Your task to perform on an android device: Open Google Chrome and click the shortcut for Amazon.com Image 0: 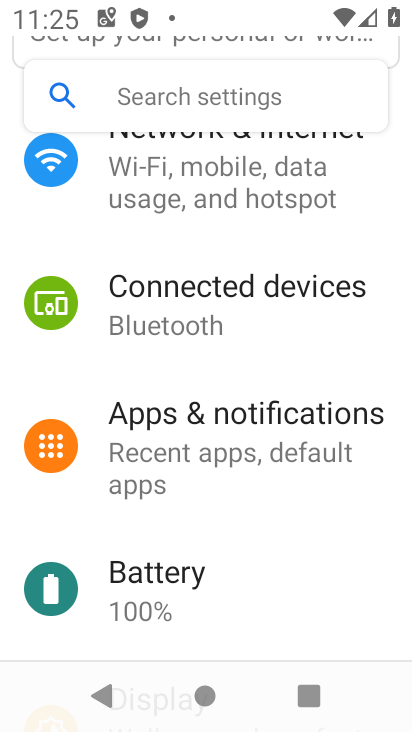
Step 0: press home button
Your task to perform on an android device: Open Google Chrome and click the shortcut for Amazon.com Image 1: 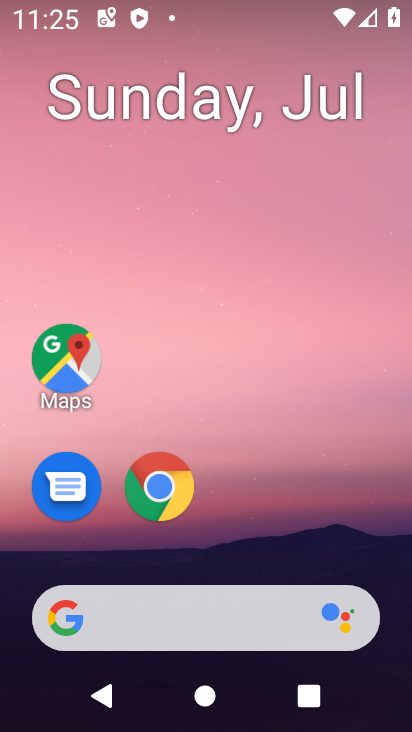
Step 1: drag from (330, 522) to (317, 66)
Your task to perform on an android device: Open Google Chrome and click the shortcut for Amazon.com Image 2: 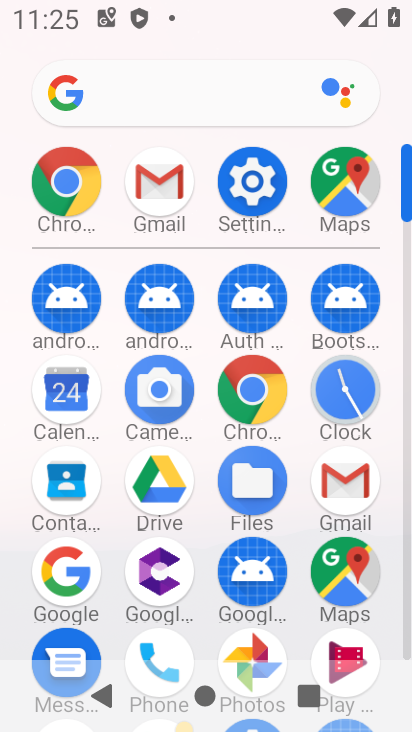
Step 2: click (253, 390)
Your task to perform on an android device: Open Google Chrome and click the shortcut for Amazon.com Image 3: 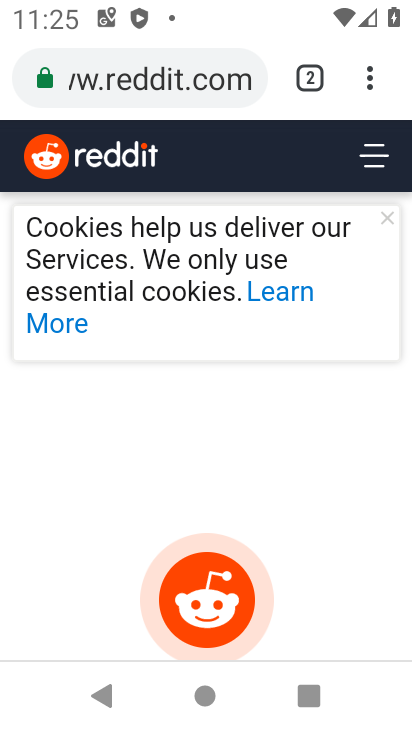
Step 3: press back button
Your task to perform on an android device: Open Google Chrome and click the shortcut for Amazon.com Image 4: 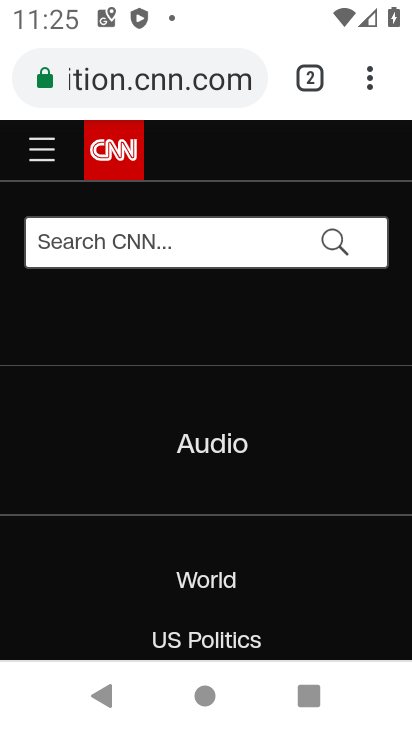
Step 4: press back button
Your task to perform on an android device: Open Google Chrome and click the shortcut for Amazon.com Image 5: 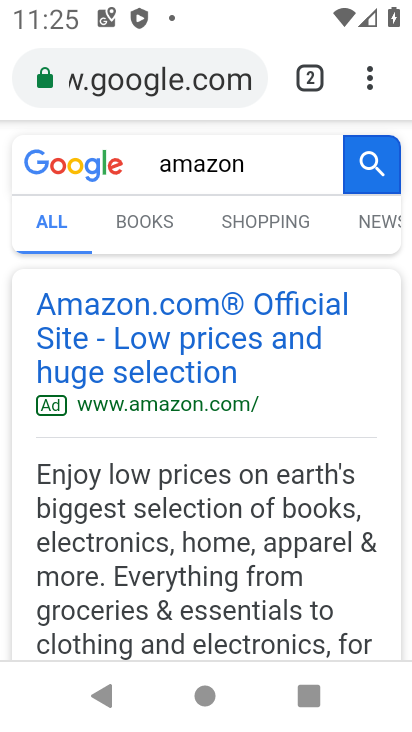
Step 5: press back button
Your task to perform on an android device: Open Google Chrome and click the shortcut for Amazon.com Image 6: 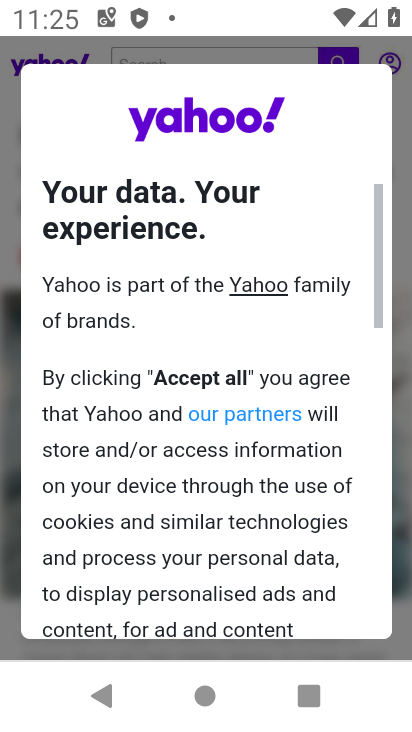
Step 6: press back button
Your task to perform on an android device: Open Google Chrome and click the shortcut for Amazon.com Image 7: 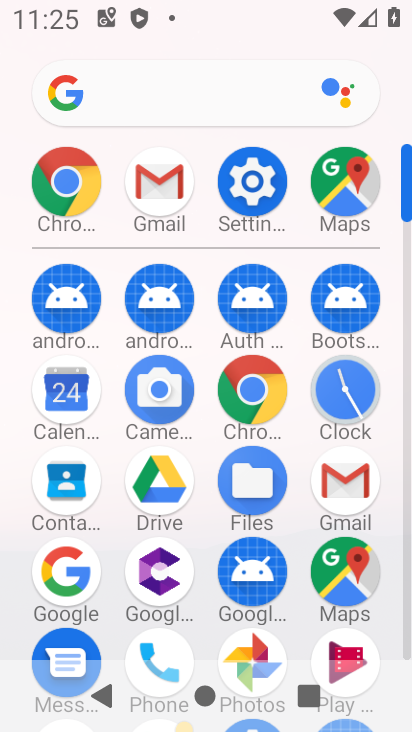
Step 7: click (255, 373)
Your task to perform on an android device: Open Google Chrome and click the shortcut for Amazon.com Image 8: 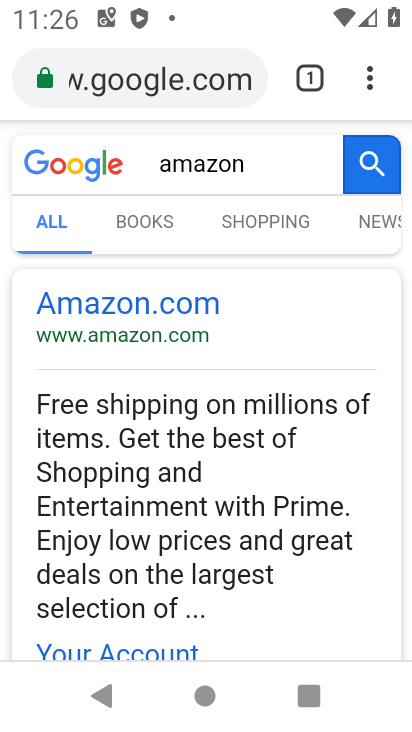
Step 8: press back button
Your task to perform on an android device: Open Google Chrome and click the shortcut for Amazon.com Image 9: 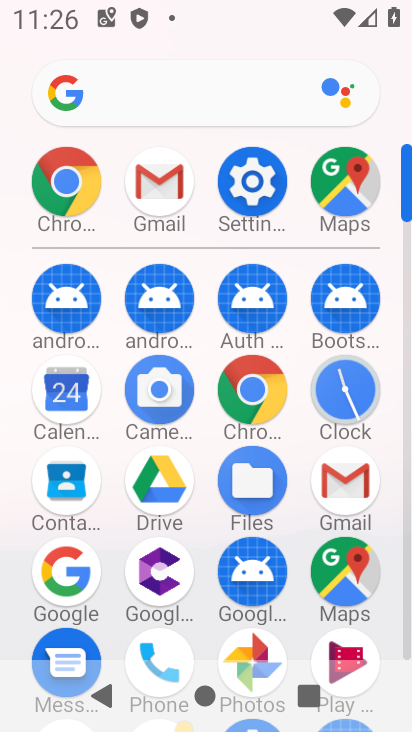
Step 9: click (253, 399)
Your task to perform on an android device: Open Google Chrome and click the shortcut for Amazon.com Image 10: 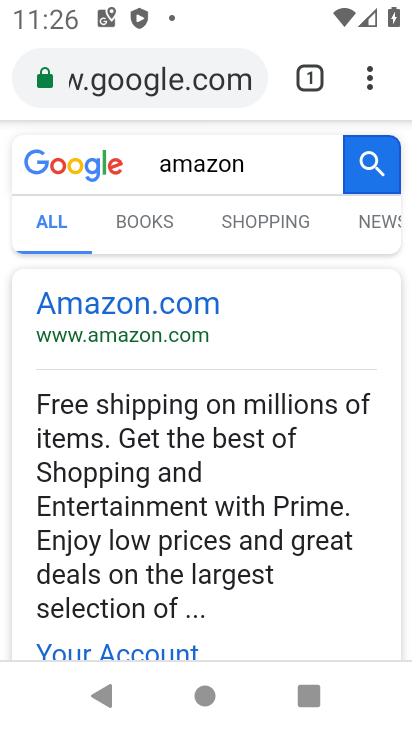
Step 10: task complete